Your task to perform on an android device: delete a single message in the gmail app Image 0: 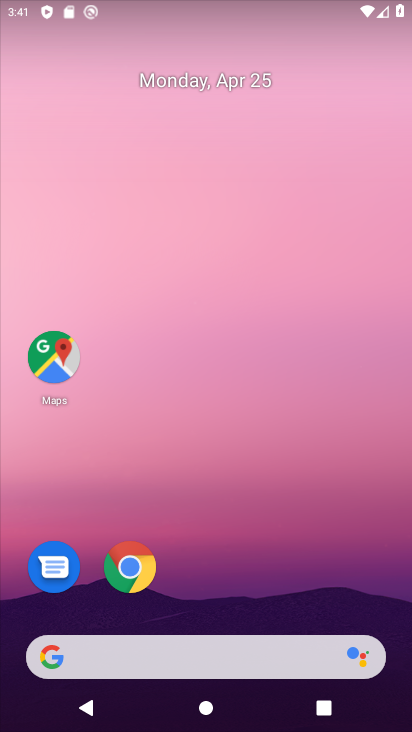
Step 0: drag from (333, 599) to (258, 15)
Your task to perform on an android device: delete a single message in the gmail app Image 1: 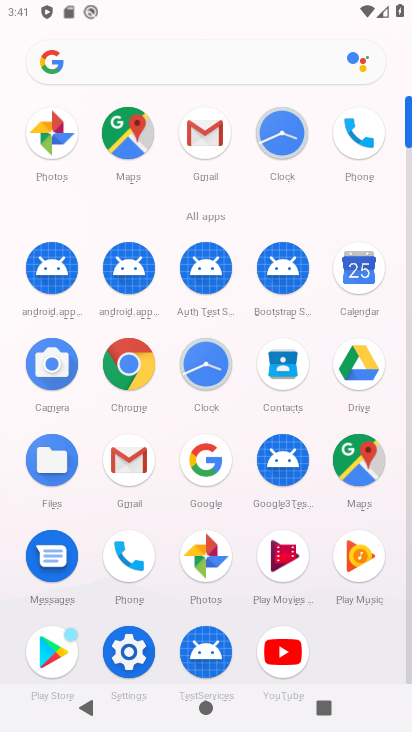
Step 1: click (111, 467)
Your task to perform on an android device: delete a single message in the gmail app Image 2: 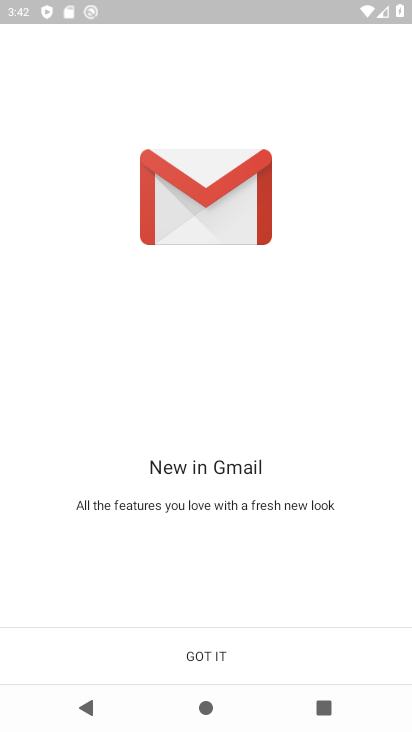
Step 2: click (222, 643)
Your task to perform on an android device: delete a single message in the gmail app Image 3: 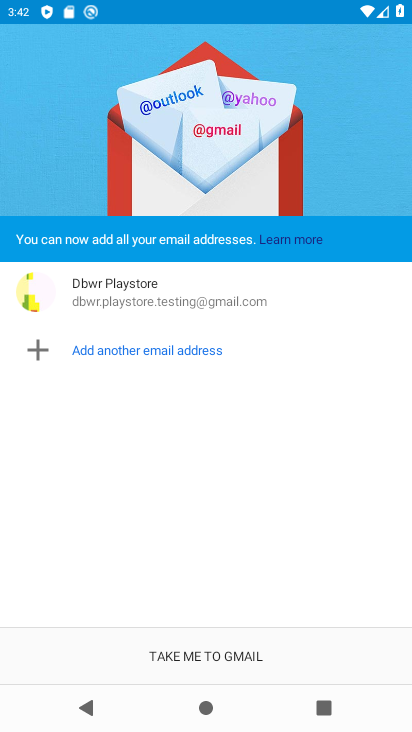
Step 3: click (222, 643)
Your task to perform on an android device: delete a single message in the gmail app Image 4: 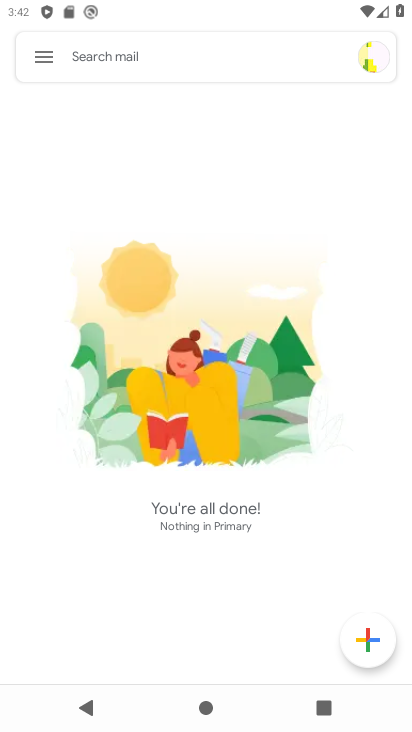
Step 4: click (48, 61)
Your task to perform on an android device: delete a single message in the gmail app Image 5: 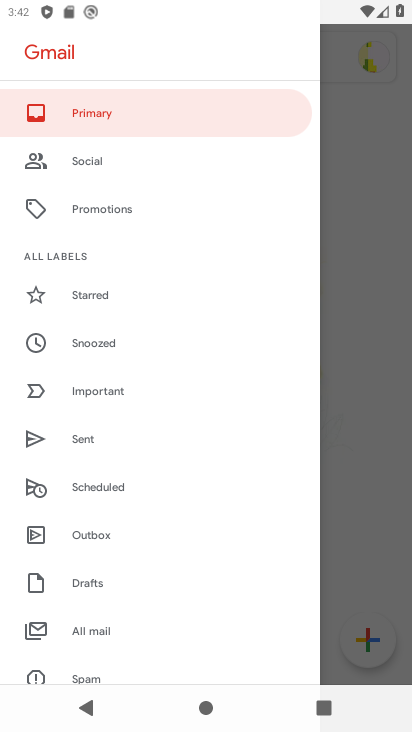
Step 5: task complete